Your task to perform on an android device: What's the news in Bangladesh? Image 0: 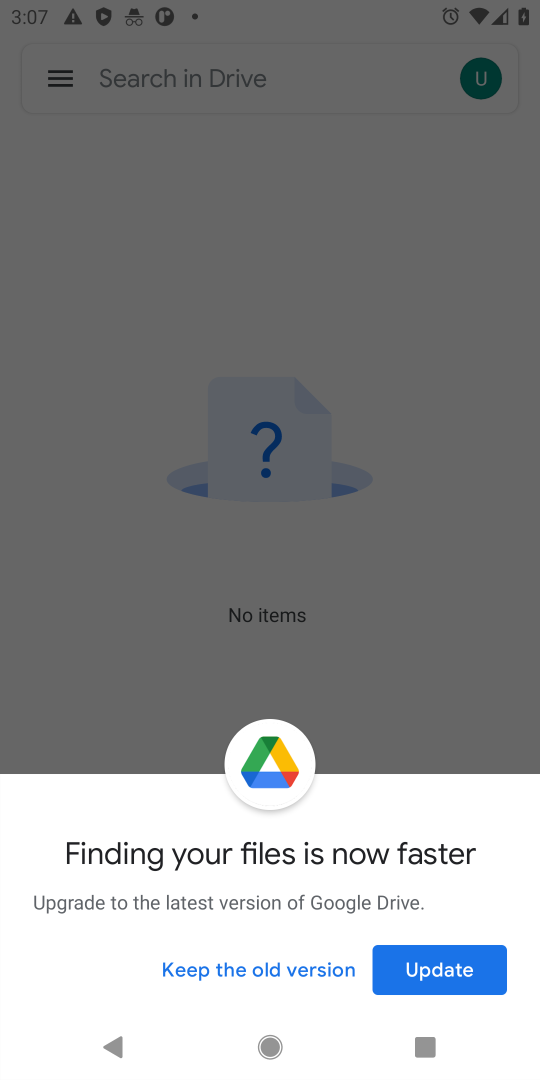
Step 0: press home button
Your task to perform on an android device: What's the news in Bangladesh? Image 1: 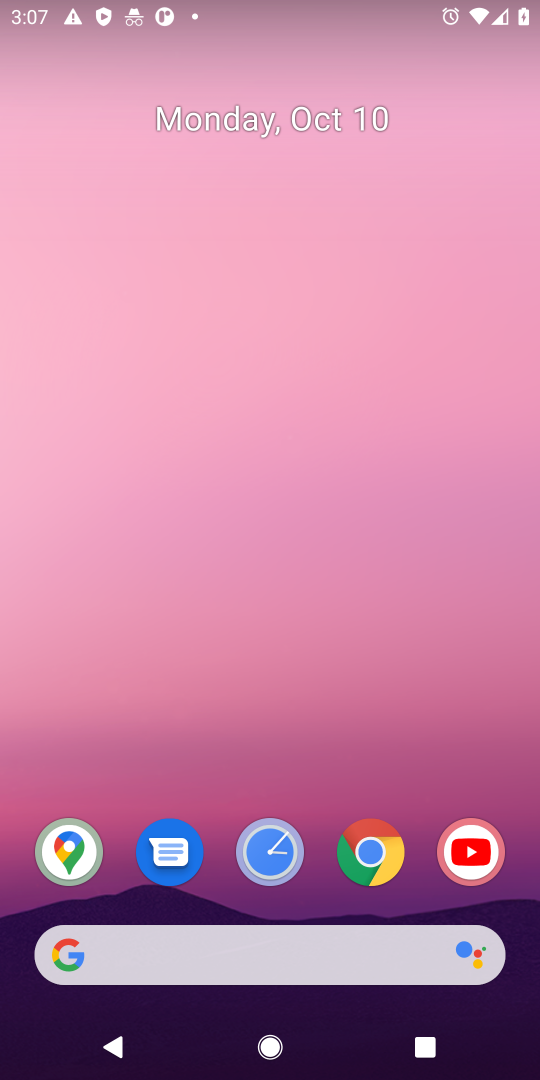
Step 1: click (313, 928)
Your task to perform on an android device: What's the news in Bangladesh? Image 2: 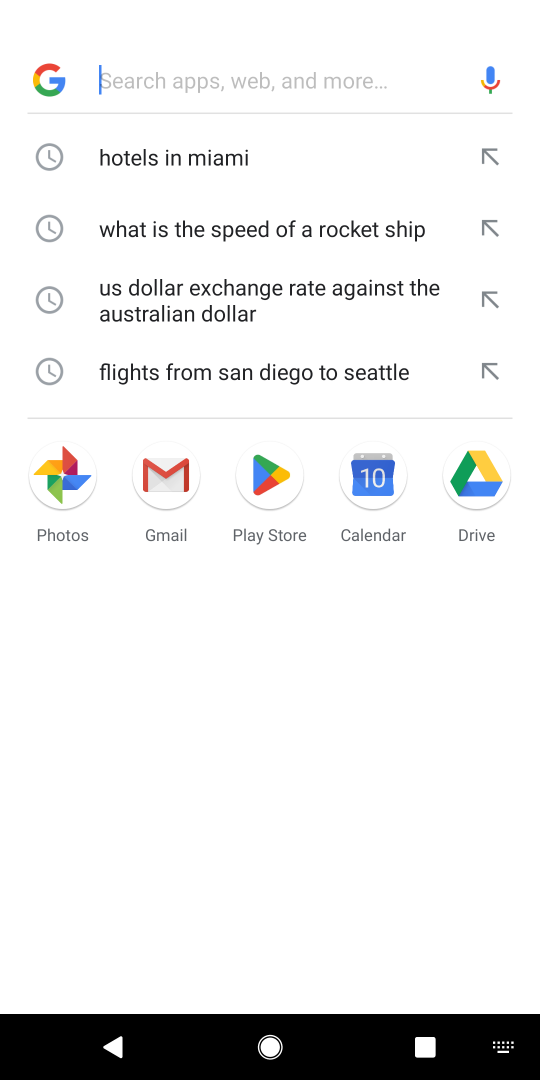
Step 2: type "news in Bangladesh"
Your task to perform on an android device: What's the news in Bangladesh? Image 3: 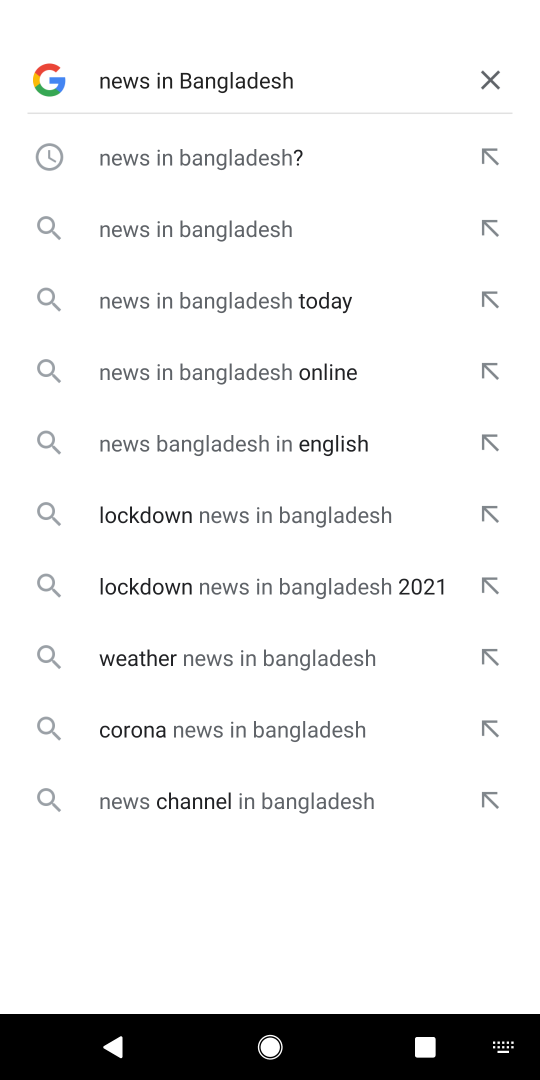
Step 3: type ""
Your task to perform on an android device: What's the news in Bangladesh? Image 4: 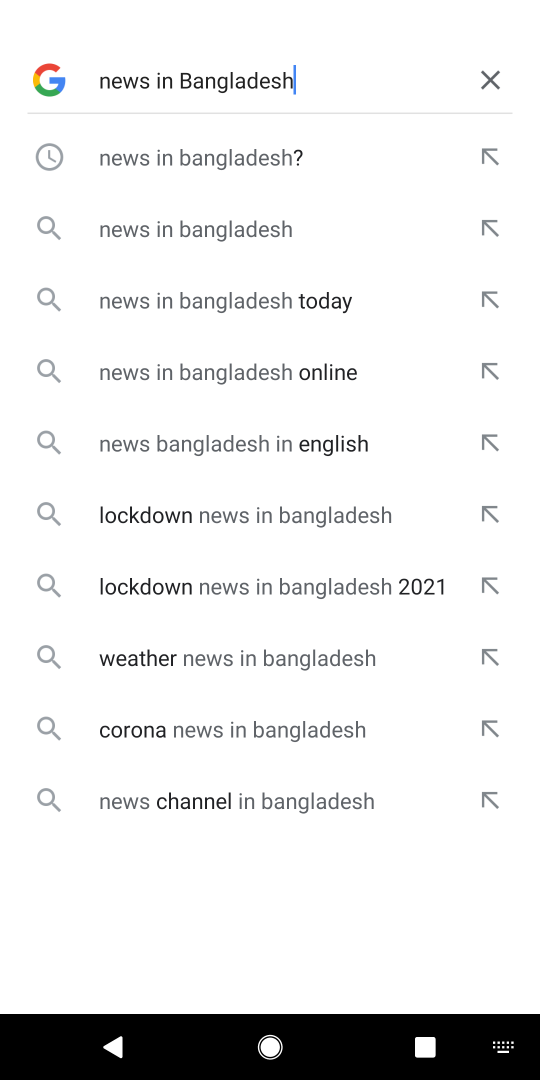
Step 4: click (269, 158)
Your task to perform on an android device: What's the news in Bangladesh? Image 5: 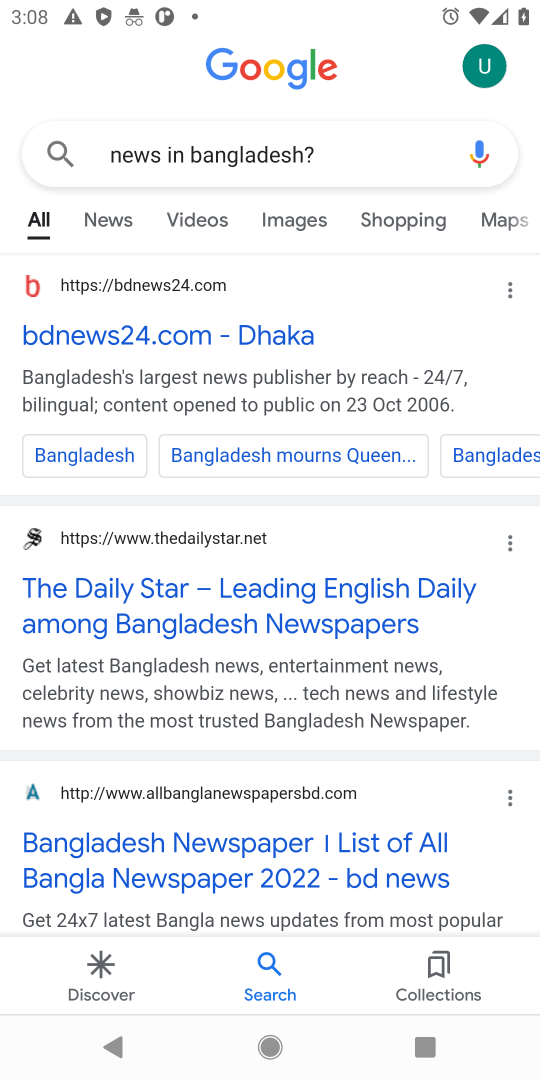
Step 5: click (120, 222)
Your task to perform on an android device: What's the news in Bangladesh? Image 6: 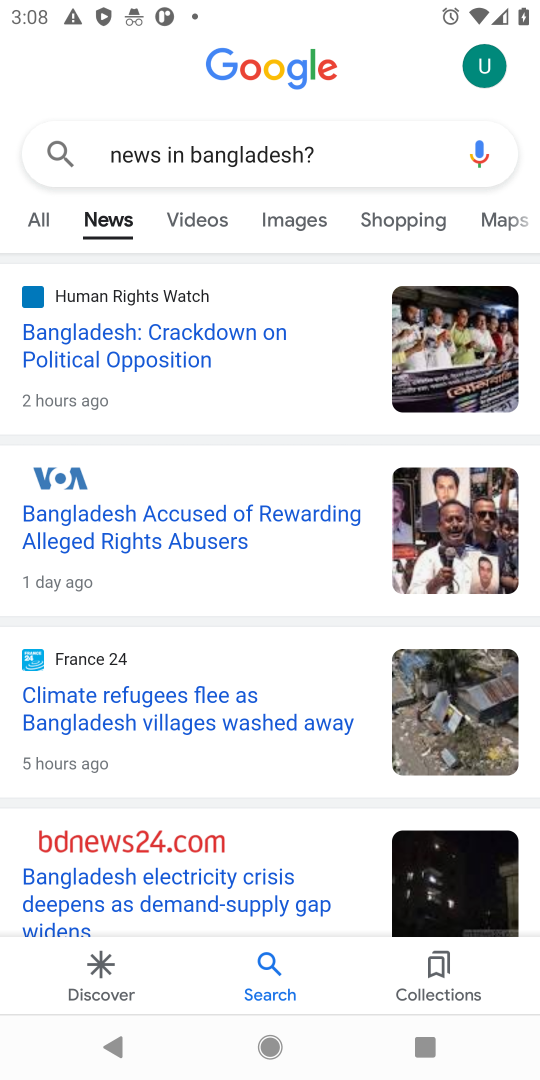
Step 6: task complete